Your task to perform on an android device: search for 2021 honda civic Image 0: 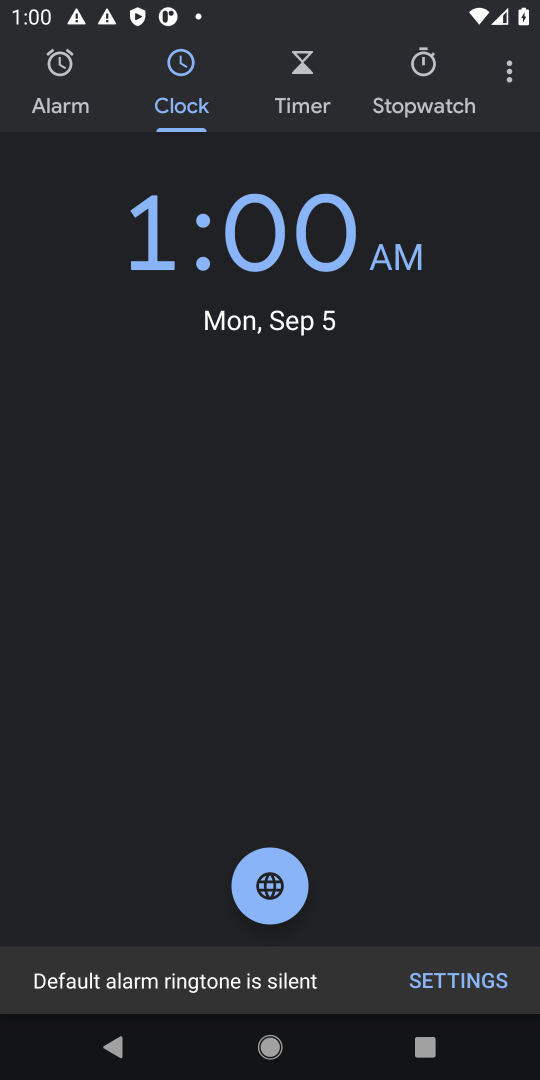
Step 0: press home button
Your task to perform on an android device: search for 2021 honda civic Image 1: 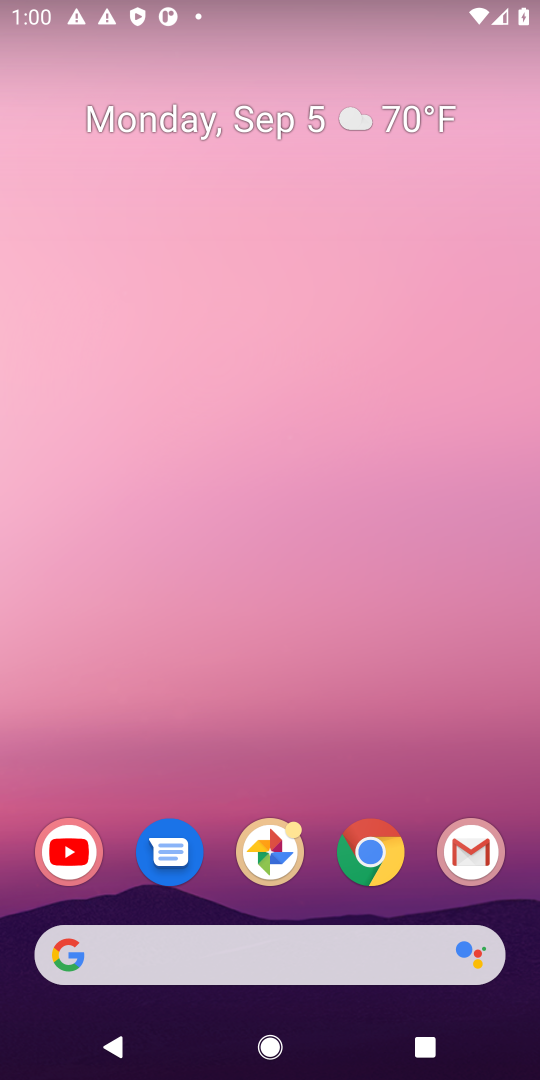
Step 1: click (369, 856)
Your task to perform on an android device: search for 2021 honda civic Image 2: 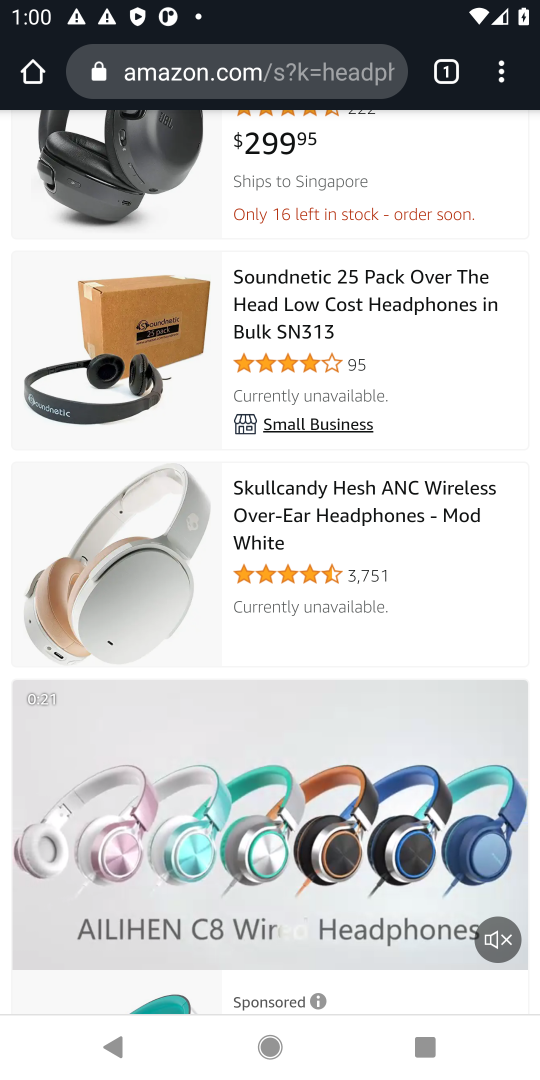
Step 2: click (309, 50)
Your task to perform on an android device: search for 2021 honda civic Image 3: 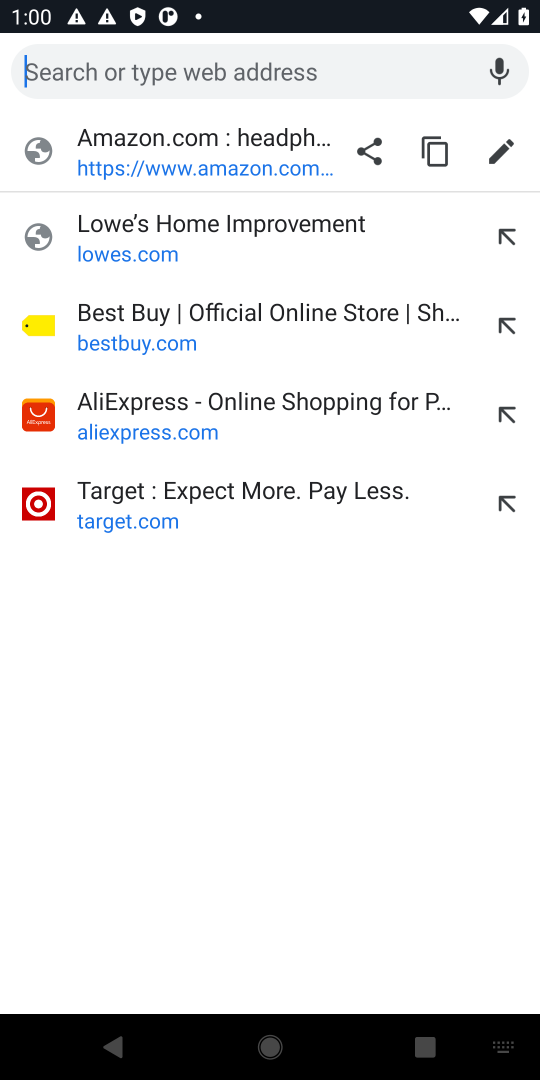
Step 3: type "2021 honda civic"
Your task to perform on an android device: search for 2021 honda civic Image 4: 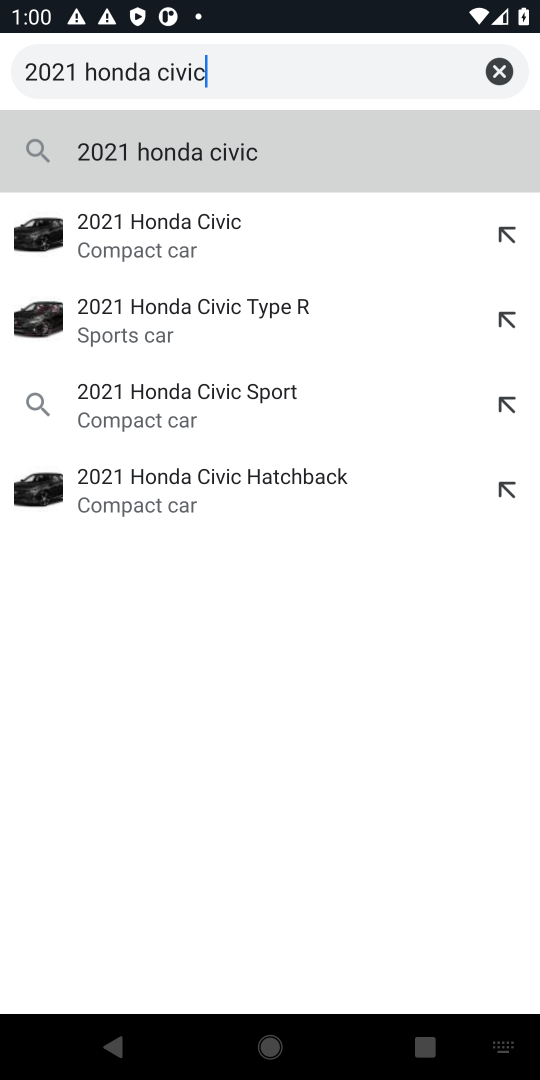
Step 4: click (156, 227)
Your task to perform on an android device: search for 2021 honda civic Image 5: 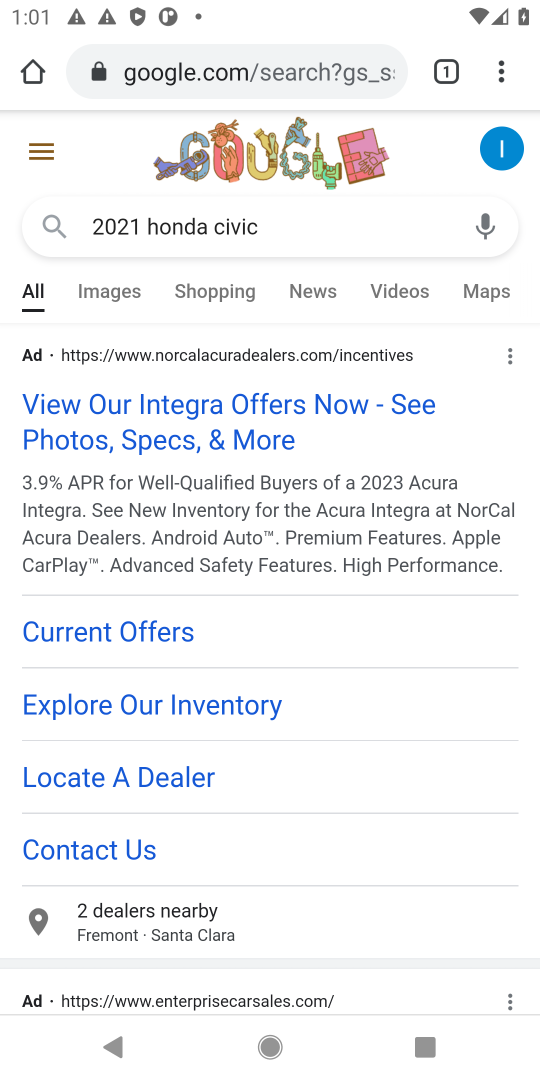
Step 5: task complete